Your task to perform on an android device: Open eBay Image 0: 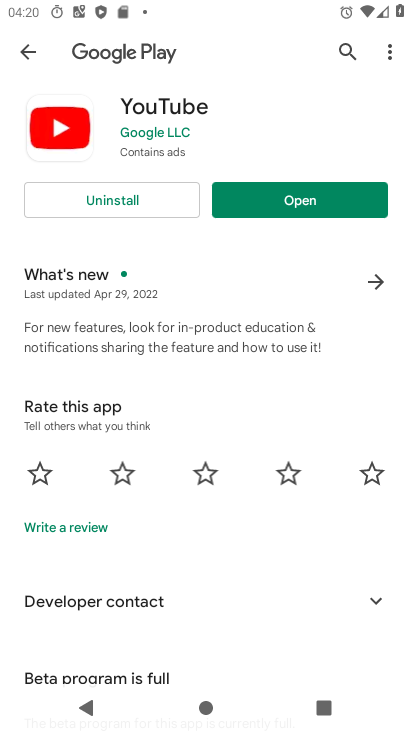
Step 0: press home button
Your task to perform on an android device: Open eBay Image 1: 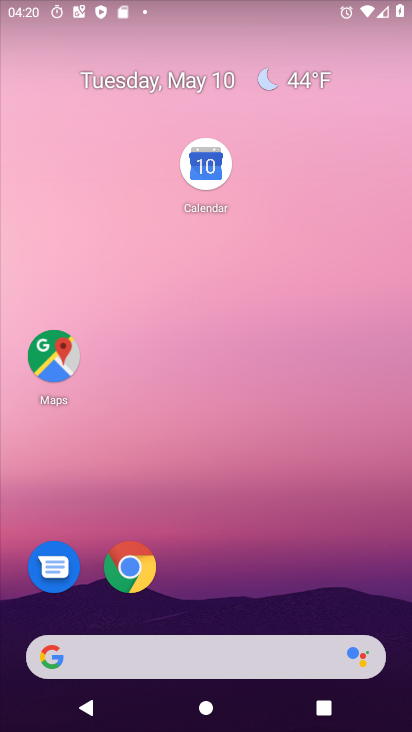
Step 1: drag from (255, 456) to (292, 94)
Your task to perform on an android device: Open eBay Image 2: 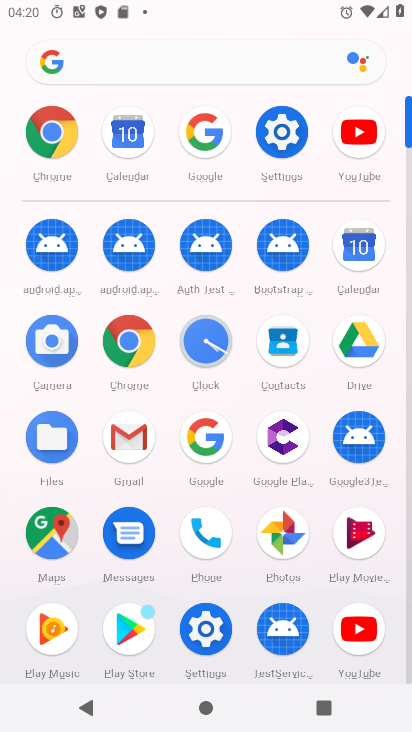
Step 2: click (210, 436)
Your task to perform on an android device: Open eBay Image 3: 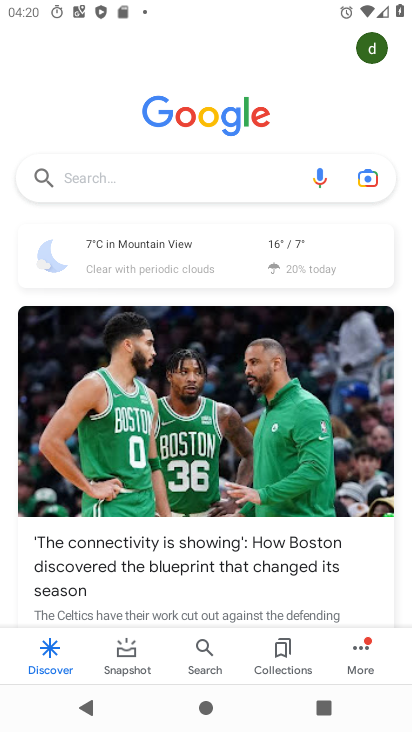
Step 3: click (132, 188)
Your task to perform on an android device: Open eBay Image 4: 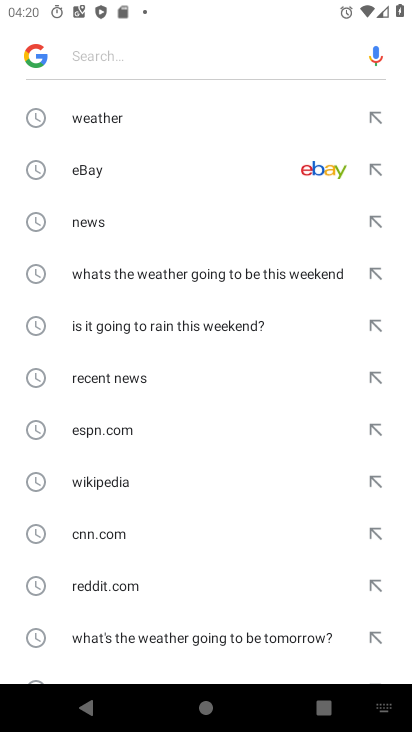
Step 4: click (102, 165)
Your task to perform on an android device: Open eBay Image 5: 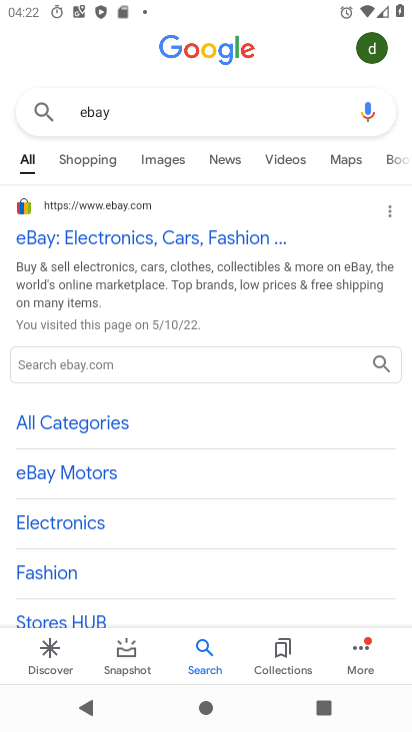
Step 5: task complete